Your task to perform on an android device: turn smart compose on in the gmail app Image 0: 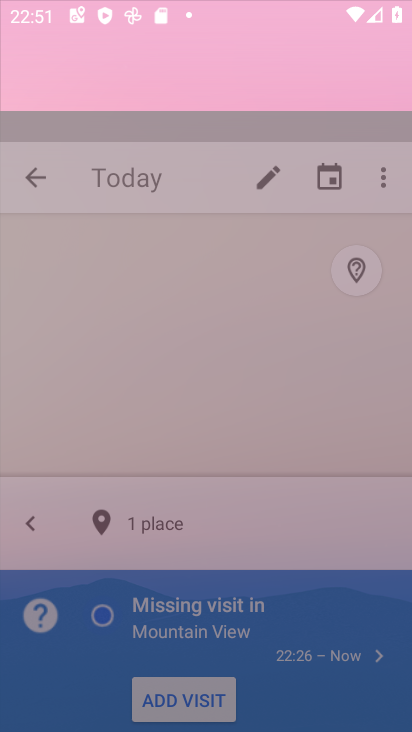
Step 0: click (219, 60)
Your task to perform on an android device: turn smart compose on in the gmail app Image 1: 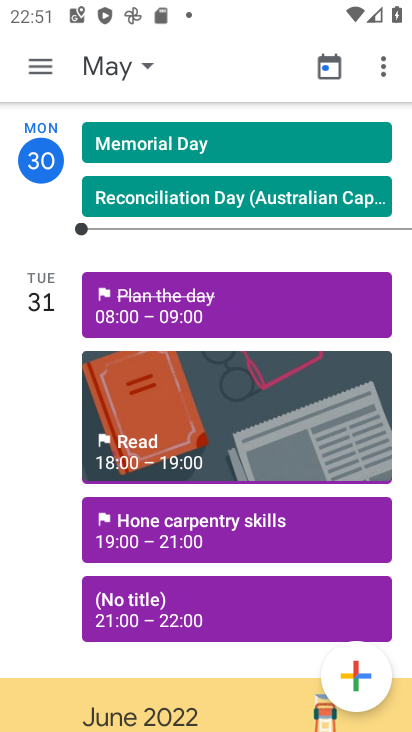
Step 1: press back button
Your task to perform on an android device: turn smart compose on in the gmail app Image 2: 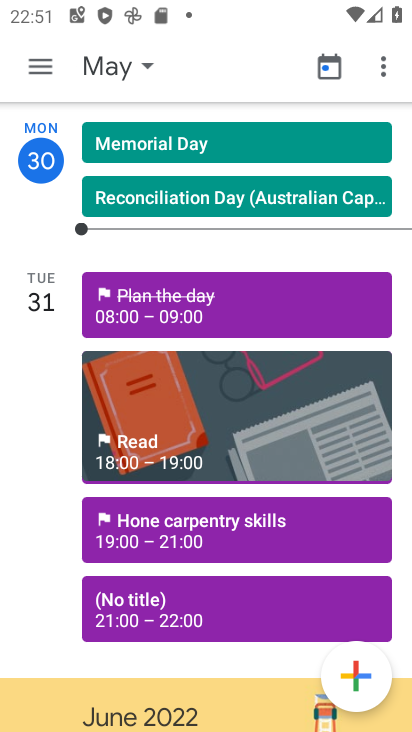
Step 2: press home button
Your task to perform on an android device: turn smart compose on in the gmail app Image 3: 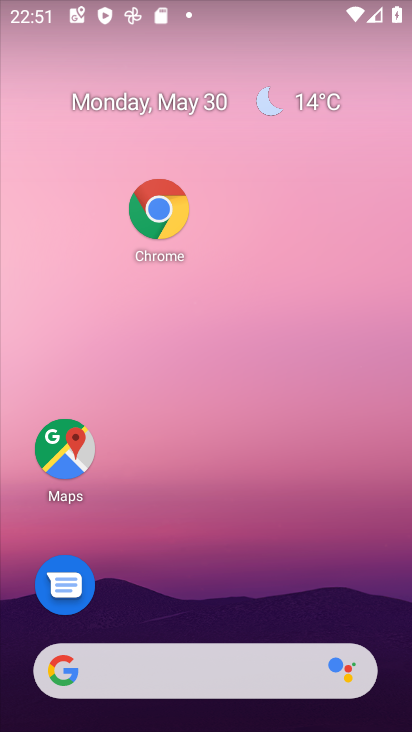
Step 3: drag from (191, 599) to (309, 103)
Your task to perform on an android device: turn smart compose on in the gmail app Image 4: 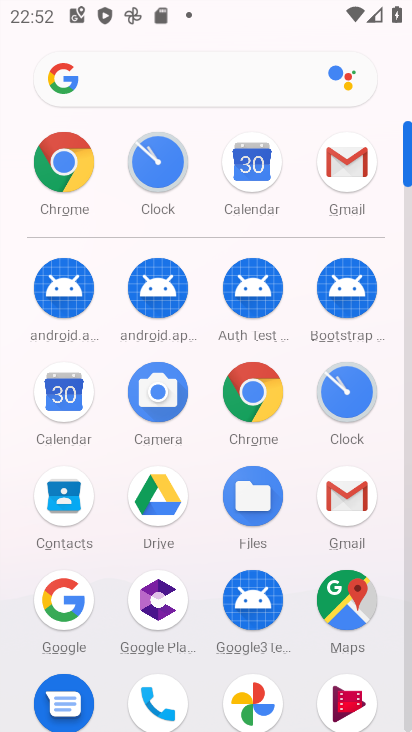
Step 4: click (343, 492)
Your task to perform on an android device: turn smart compose on in the gmail app Image 5: 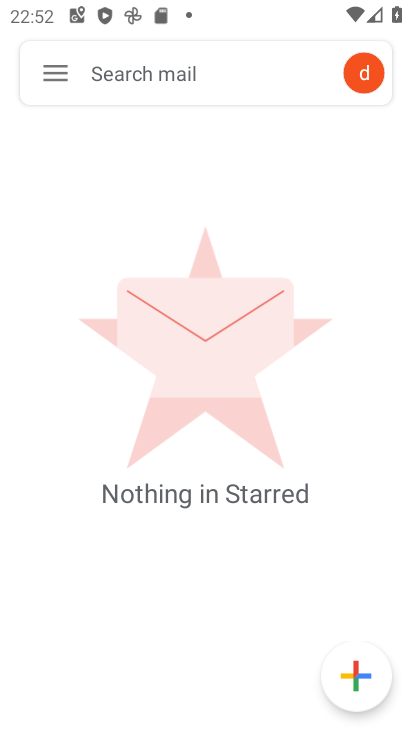
Step 5: click (55, 76)
Your task to perform on an android device: turn smart compose on in the gmail app Image 6: 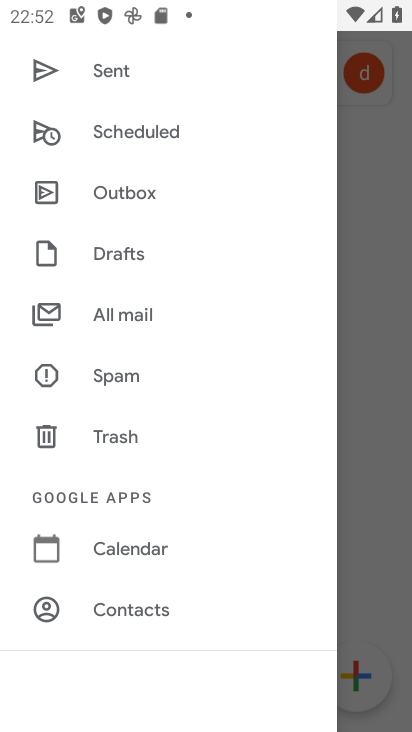
Step 6: drag from (146, 528) to (203, 40)
Your task to perform on an android device: turn smart compose on in the gmail app Image 7: 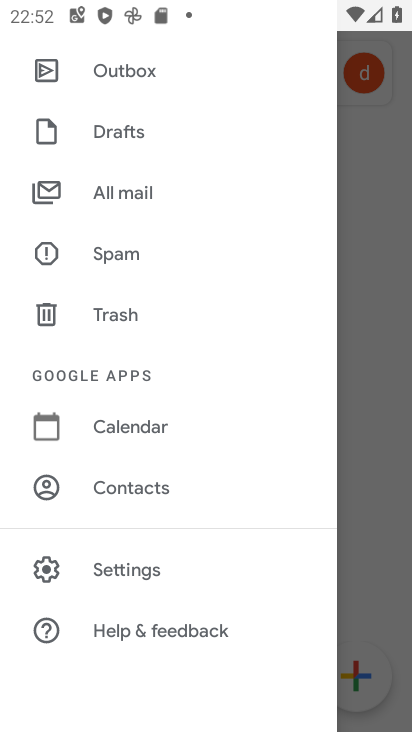
Step 7: click (136, 580)
Your task to perform on an android device: turn smart compose on in the gmail app Image 8: 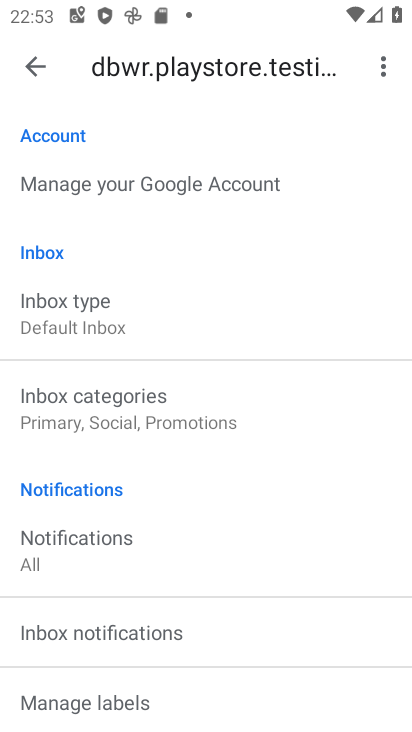
Step 8: task complete